Your task to perform on an android device: Open Google Chrome and open the bookmarks view Image 0: 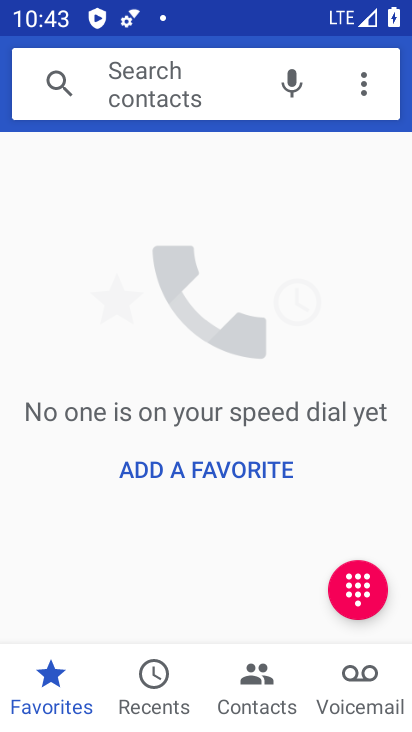
Step 0: press home button
Your task to perform on an android device: Open Google Chrome and open the bookmarks view Image 1: 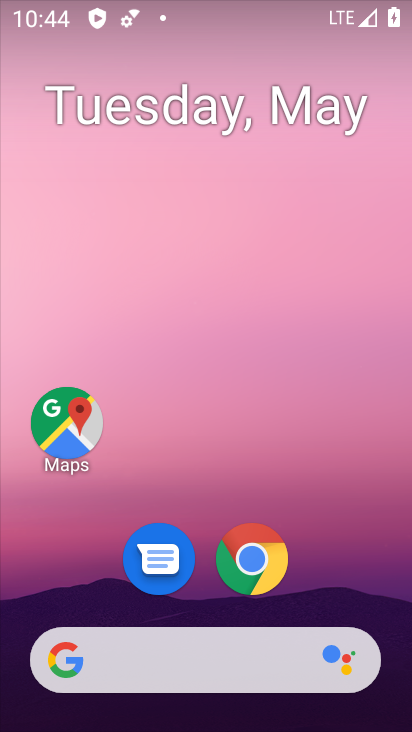
Step 1: drag from (369, 588) to (318, 145)
Your task to perform on an android device: Open Google Chrome and open the bookmarks view Image 2: 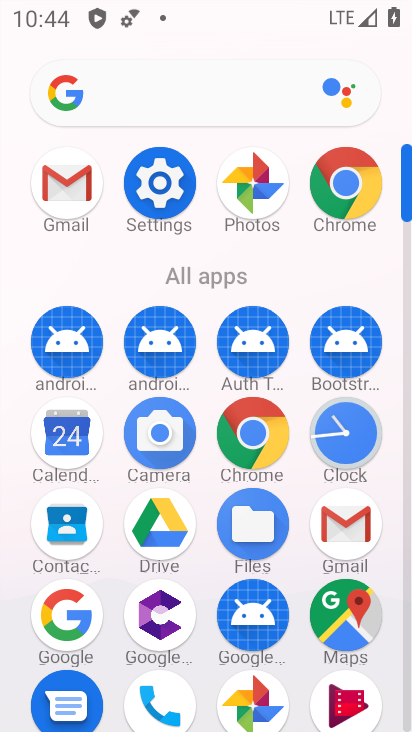
Step 2: click (243, 435)
Your task to perform on an android device: Open Google Chrome and open the bookmarks view Image 3: 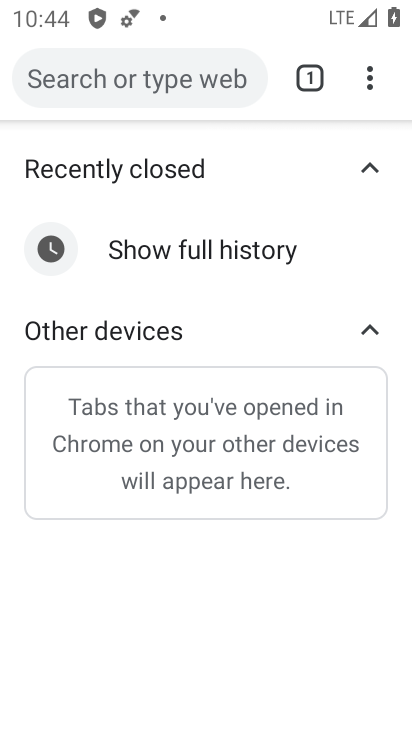
Step 3: task complete